Your task to perform on an android device: Check the weather Image 0: 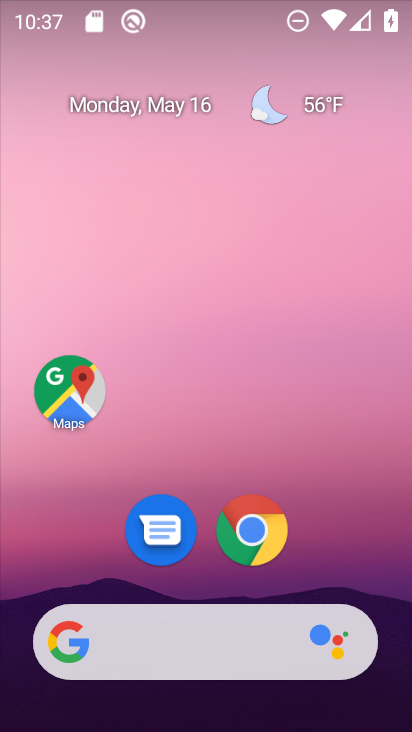
Step 0: click (258, 639)
Your task to perform on an android device: Check the weather Image 1: 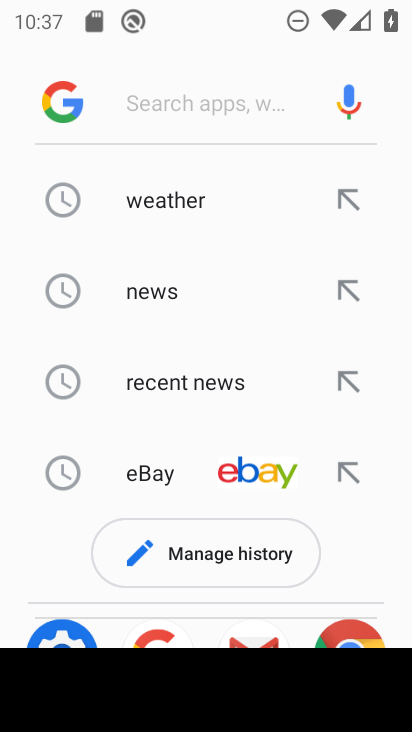
Step 1: click (189, 219)
Your task to perform on an android device: Check the weather Image 2: 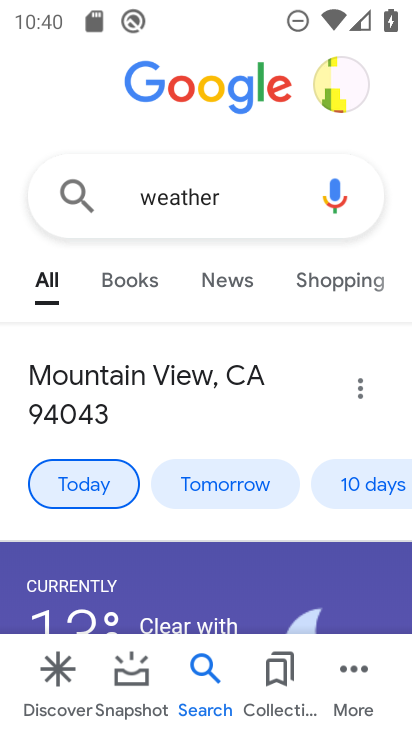
Step 2: task complete